Your task to perform on an android device: Turn on the flashlight Image 0: 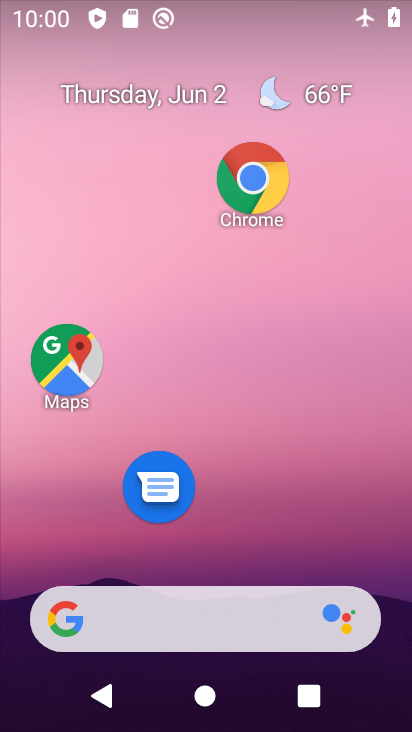
Step 0: drag from (226, 726) to (192, 0)
Your task to perform on an android device: Turn on the flashlight Image 1: 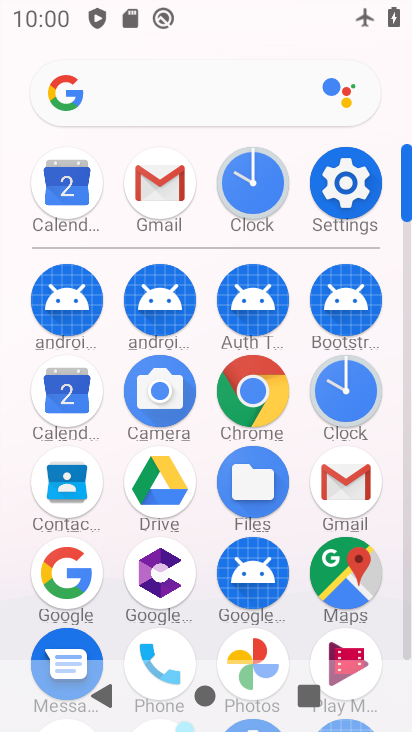
Step 1: click (331, 179)
Your task to perform on an android device: Turn on the flashlight Image 2: 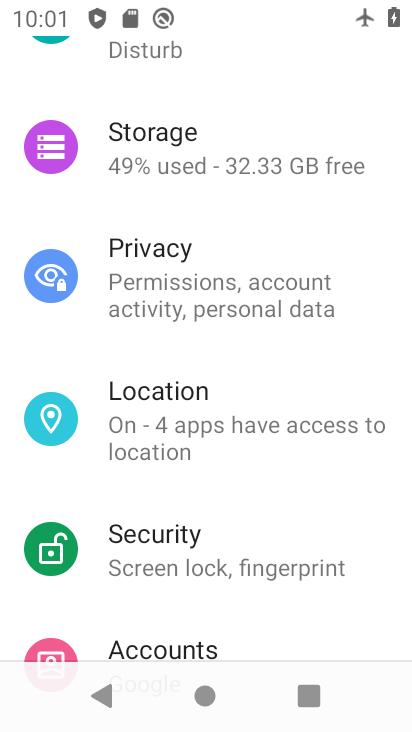
Step 2: task complete